Your task to perform on an android device: What is the speed of light? Image 0: 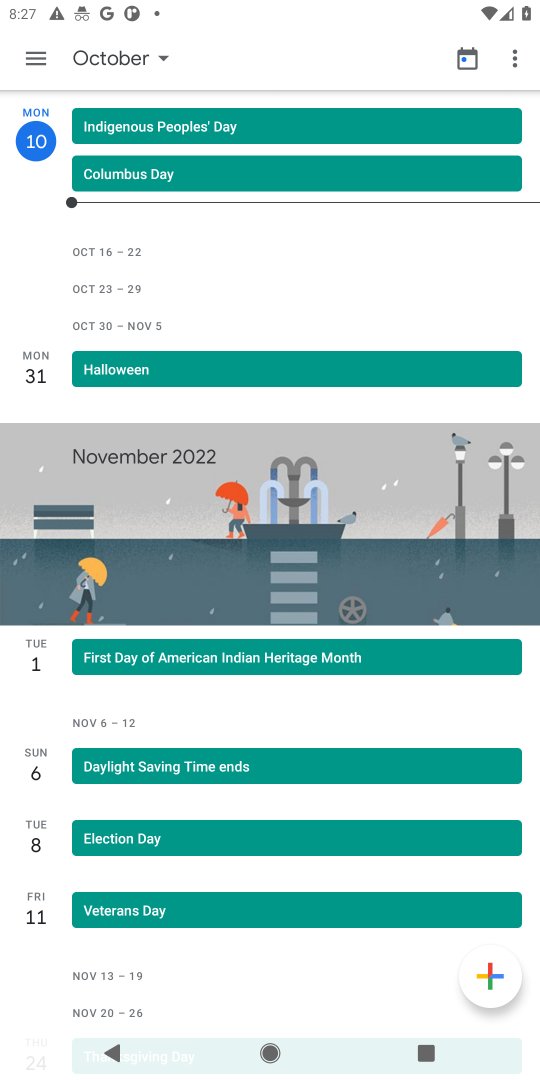
Step 0: press home button
Your task to perform on an android device: What is the speed of light? Image 1: 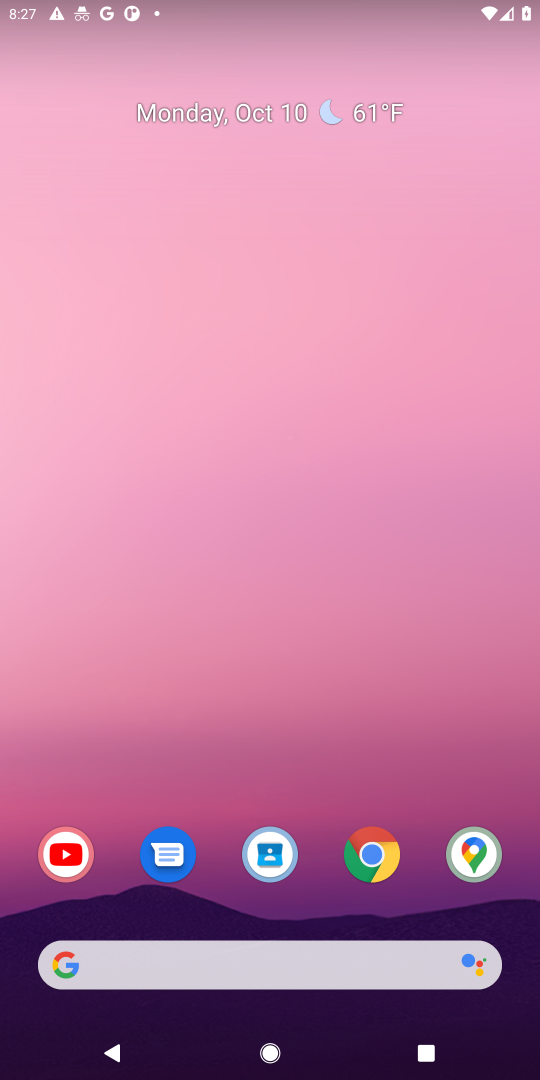
Step 1: click (374, 855)
Your task to perform on an android device: What is the speed of light? Image 2: 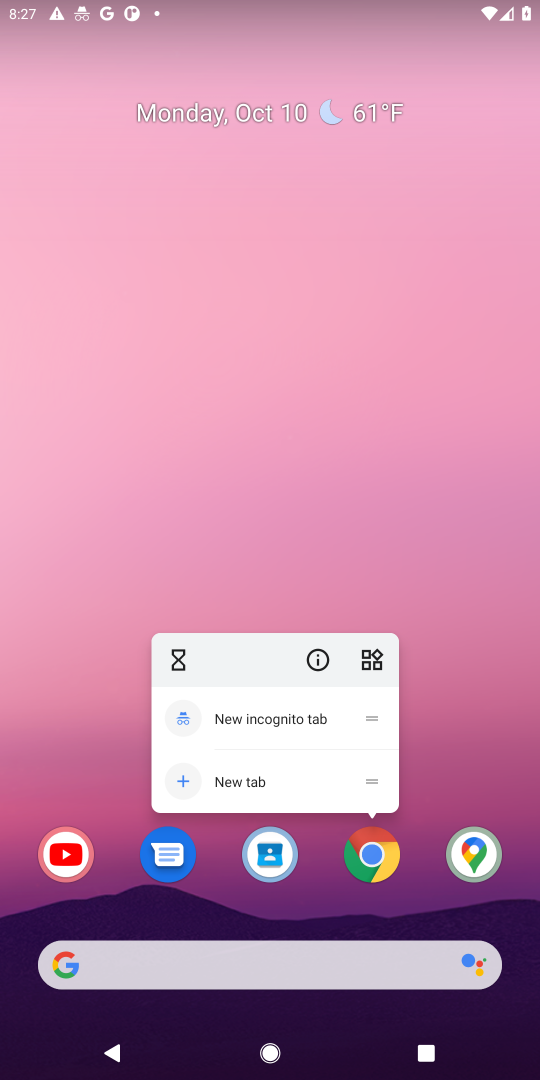
Step 2: click (374, 855)
Your task to perform on an android device: What is the speed of light? Image 3: 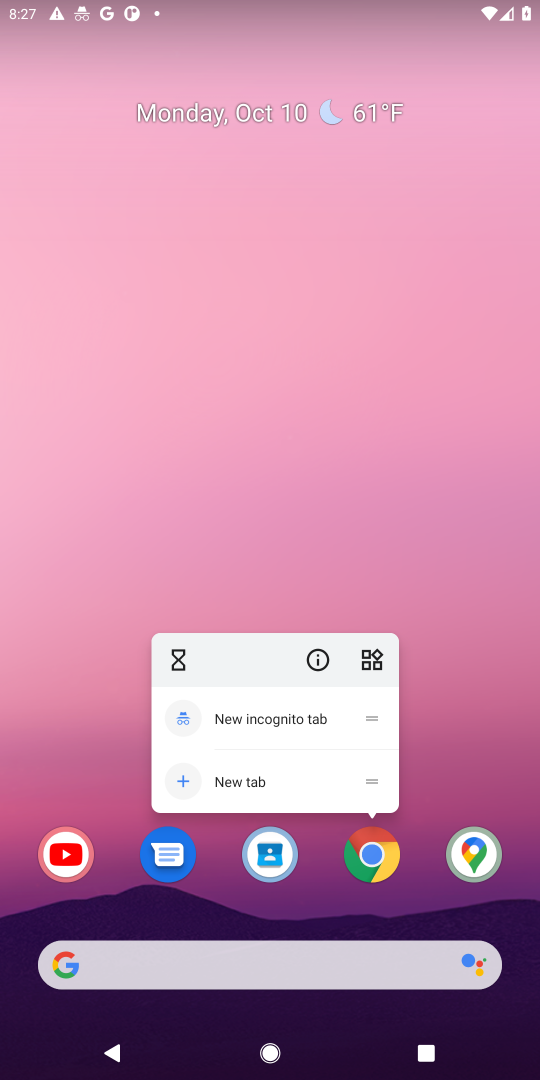
Step 3: click (374, 855)
Your task to perform on an android device: What is the speed of light? Image 4: 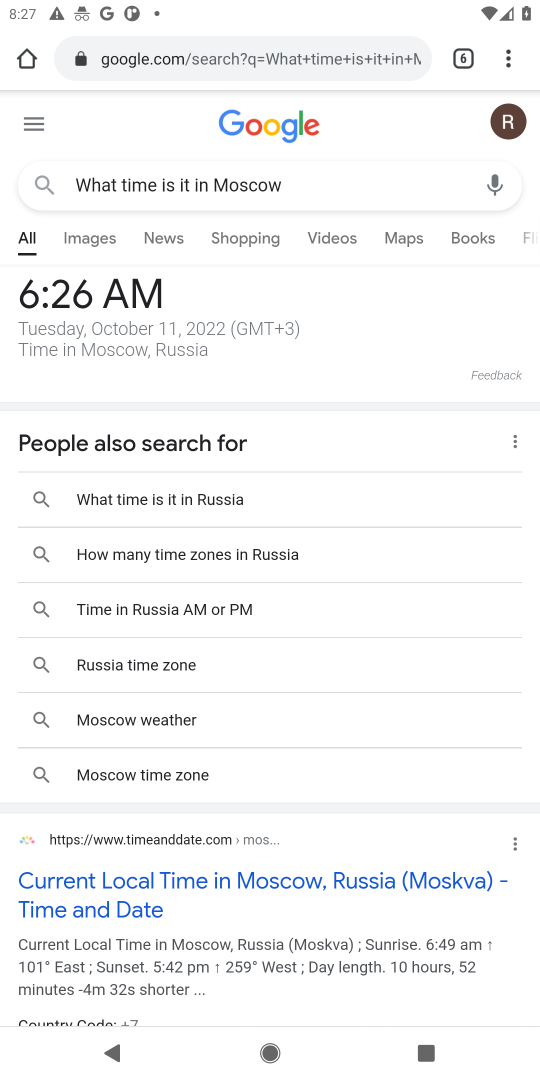
Step 4: click (336, 50)
Your task to perform on an android device: What is the speed of light? Image 5: 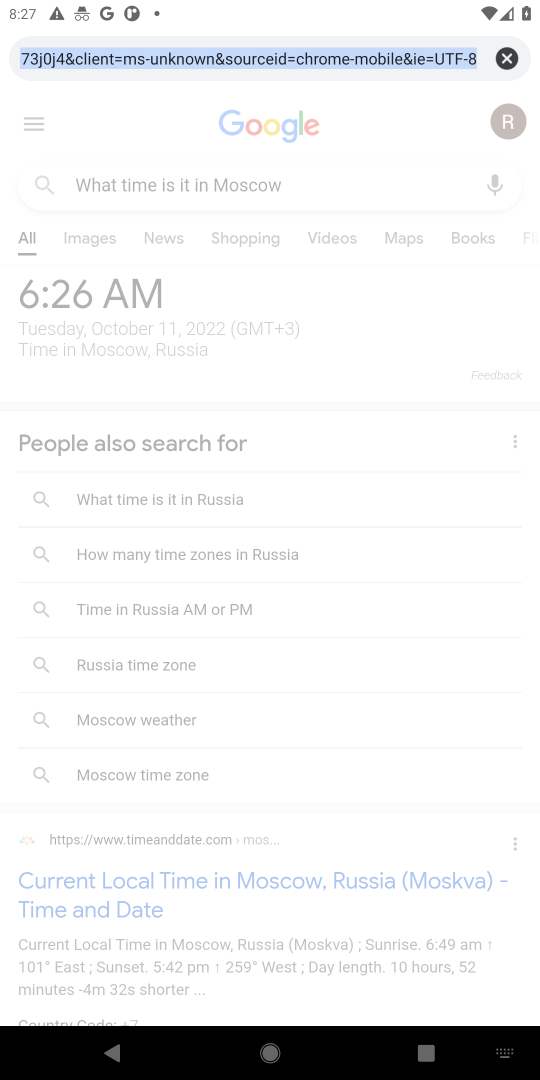
Step 5: click (510, 64)
Your task to perform on an android device: What is the speed of light? Image 6: 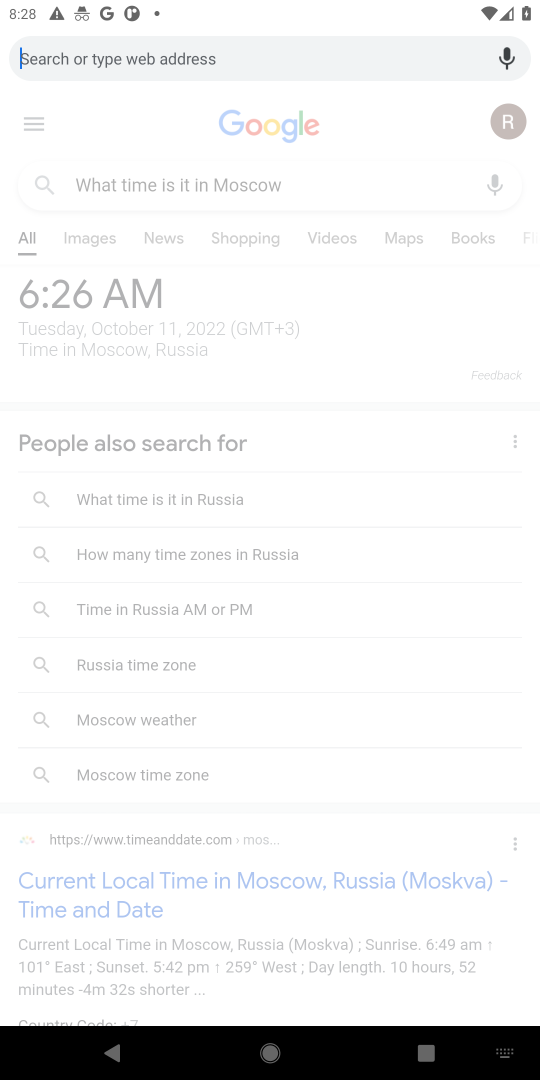
Step 6: type " speed of light"
Your task to perform on an android device: What is the speed of light? Image 7: 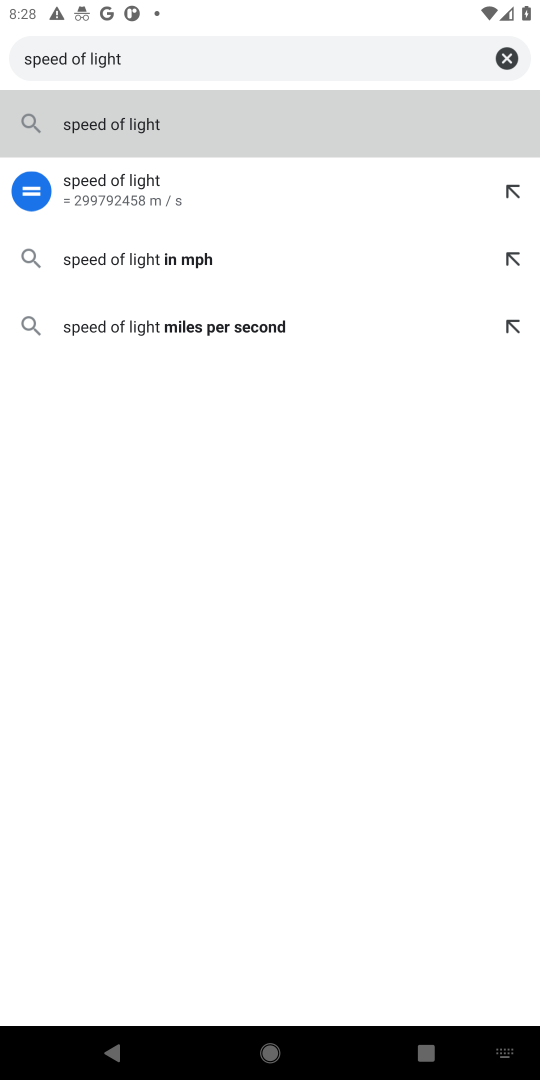
Step 7: click (142, 186)
Your task to perform on an android device: What is the speed of light? Image 8: 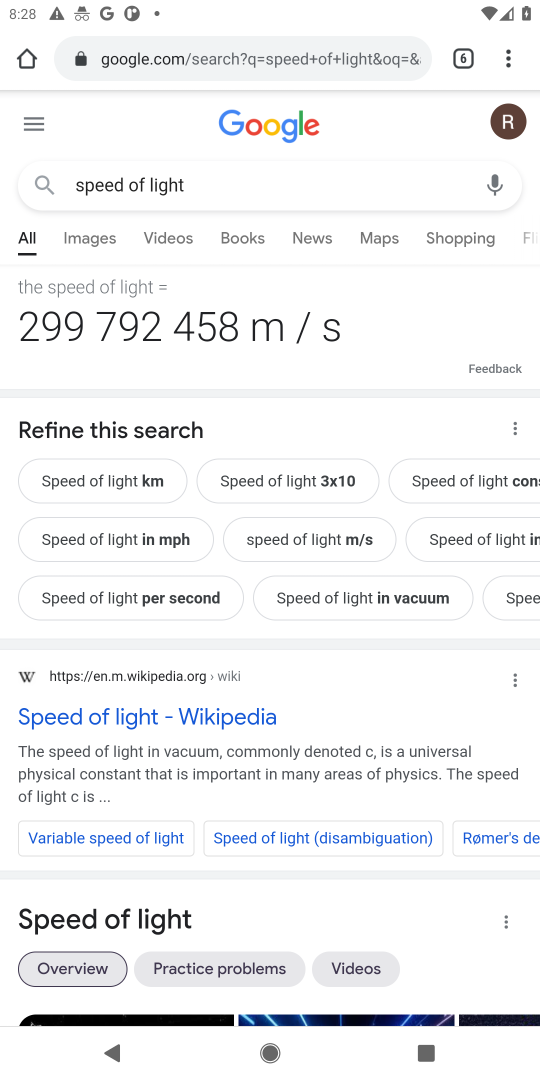
Step 8: task complete